Your task to perform on an android device: change the clock style Image 0: 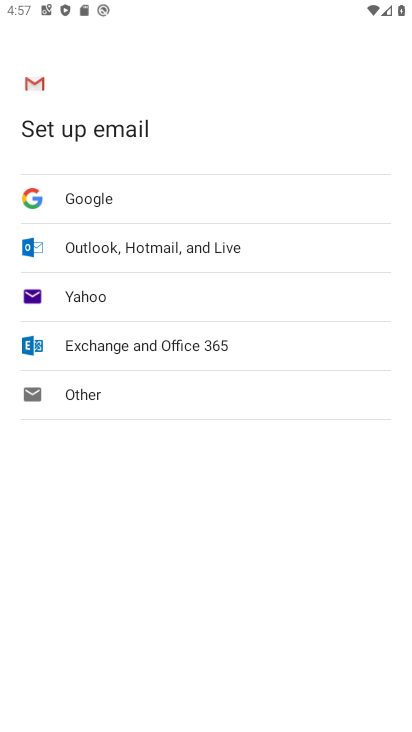
Step 0: press home button
Your task to perform on an android device: change the clock style Image 1: 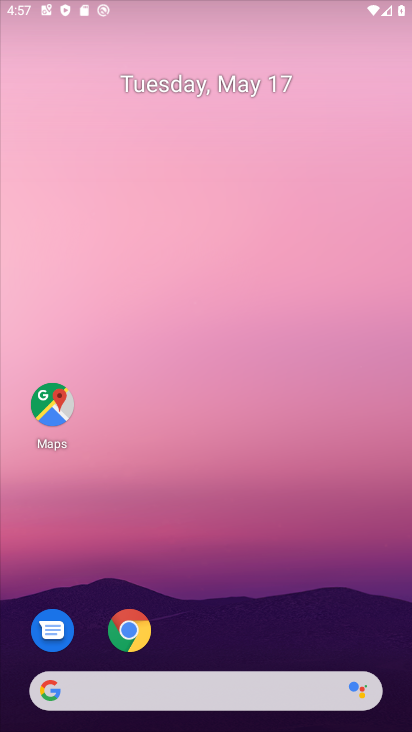
Step 1: drag from (315, 588) to (288, 103)
Your task to perform on an android device: change the clock style Image 2: 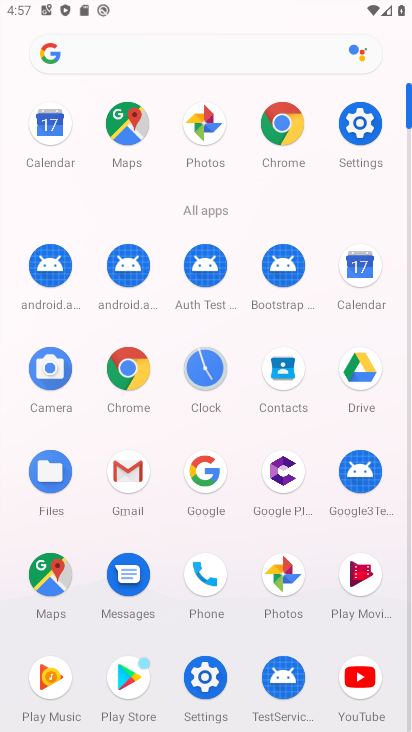
Step 2: click (204, 366)
Your task to perform on an android device: change the clock style Image 3: 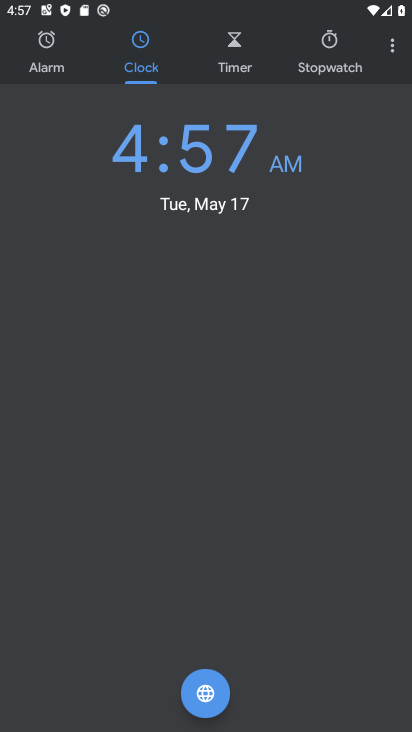
Step 3: drag from (391, 53) to (294, 91)
Your task to perform on an android device: change the clock style Image 4: 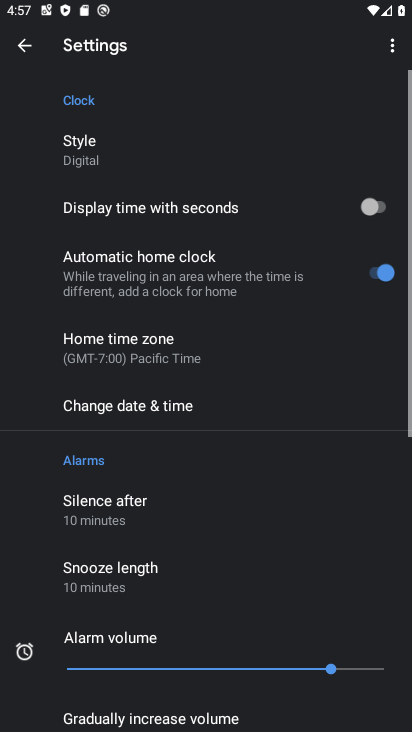
Step 4: click (98, 149)
Your task to perform on an android device: change the clock style Image 5: 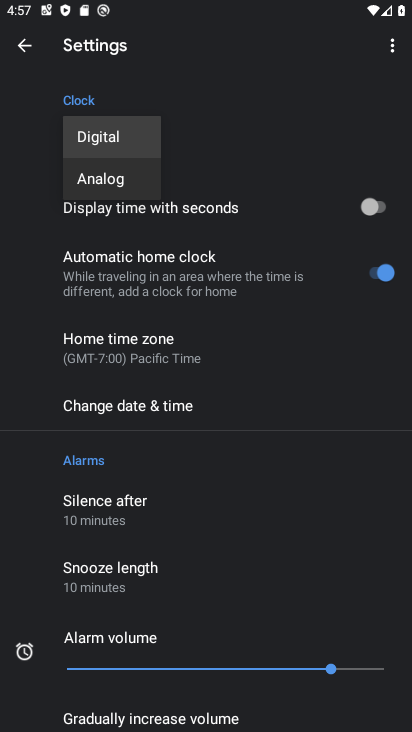
Step 5: click (120, 191)
Your task to perform on an android device: change the clock style Image 6: 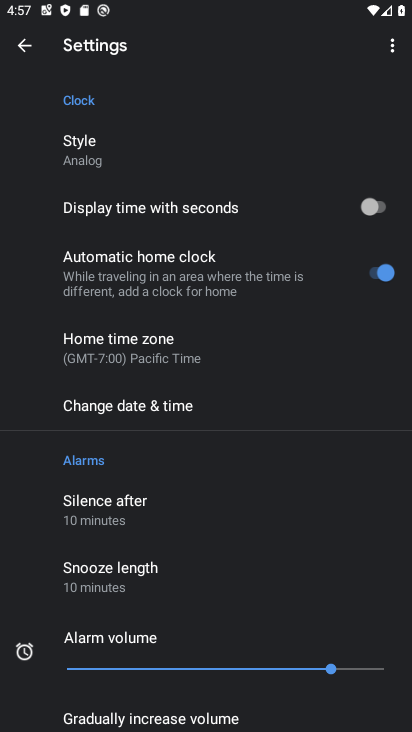
Step 6: task complete